Your task to perform on an android device: see sites visited before in the chrome app Image 0: 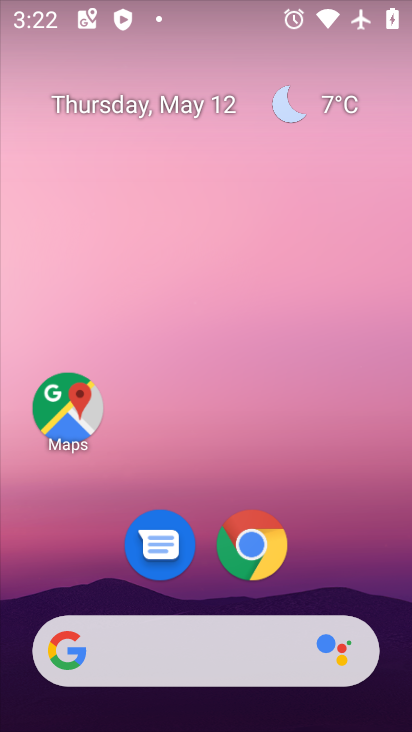
Step 0: click (255, 545)
Your task to perform on an android device: see sites visited before in the chrome app Image 1: 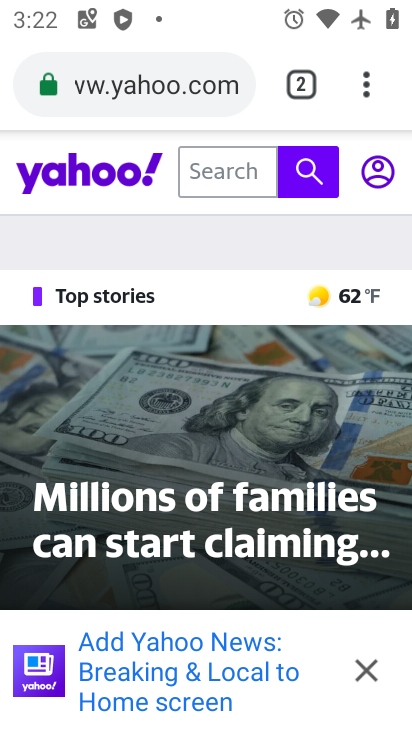
Step 1: click (363, 94)
Your task to perform on an android device: see sites visited before in the chrome app Image 2: 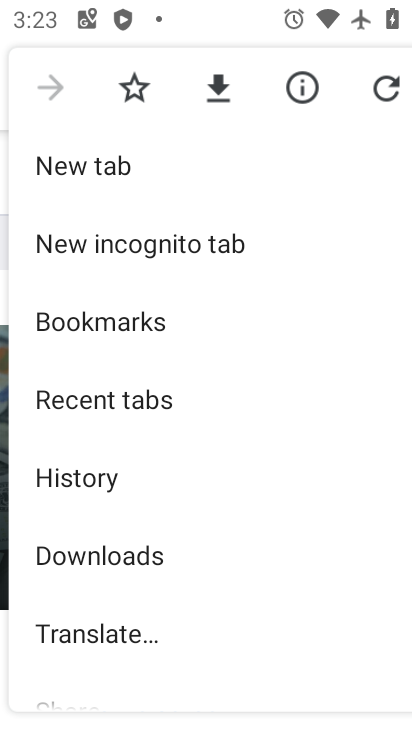
Step 2: click (76, 471)
Your task to perform on an android device: see sites visited before in the chrome app Image 3: 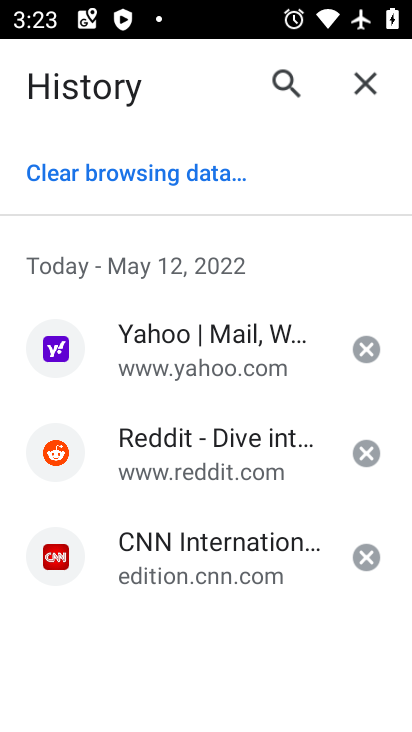
Step 3: task complete